Your task to perform on an android device: move an email to a new category in the gmail app Image 0: 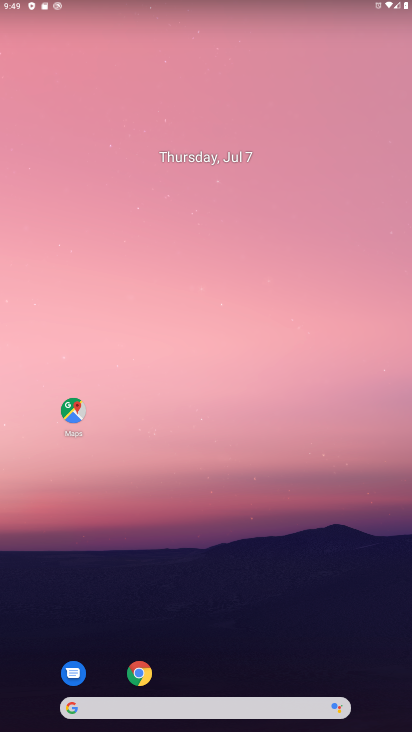
Step 0: drag from (207, 548) to (271, 34)
Your task to perform on an android device: move an email to a new category in the gmail app Image 1: 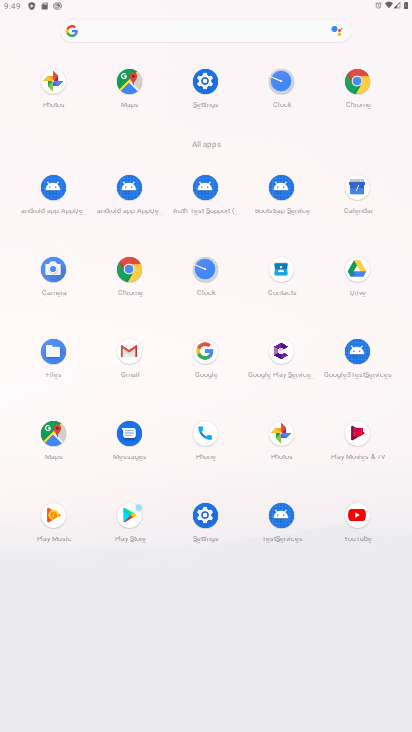
Step 1: click (133, 357)
Your task to perform on an android device: move an email to a new category in the gmail app Image 2: 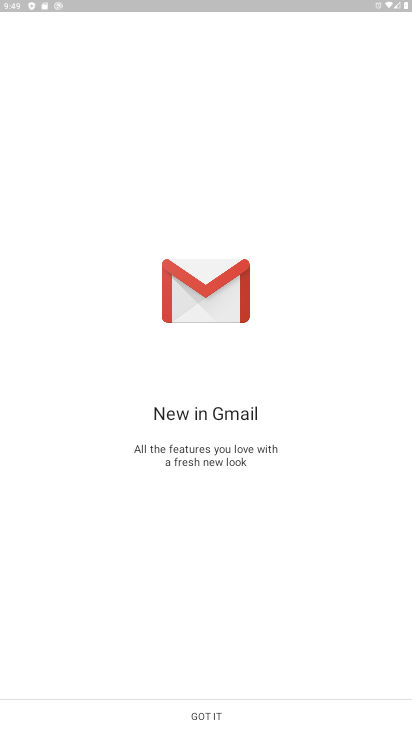
Step 2: click (224, 717)
Your task to perform on an android device: move an email to a new category in the gmail app Image 3: 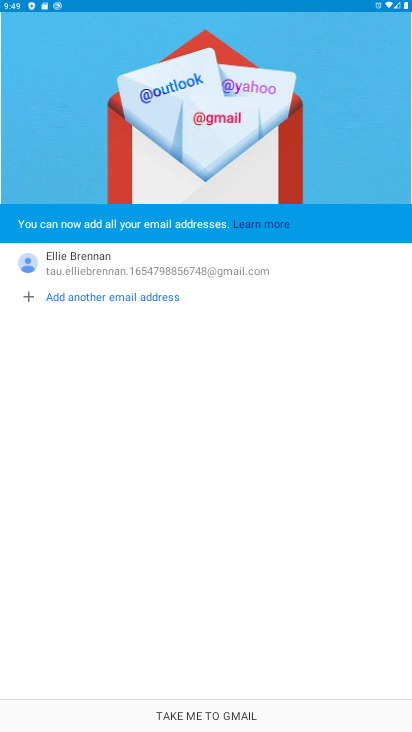
Step 3: click (224, 718)
Your task to perform on an android device: move an email to a new category in the gmail app Image 4: 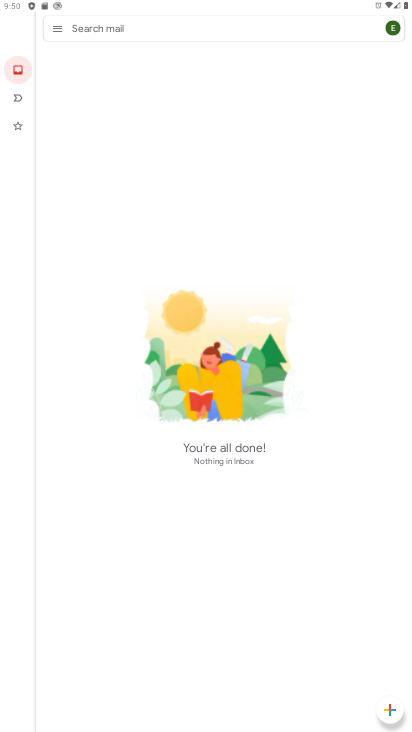
Step 4: task complete